Your task to perform on an android device: Open Google Chrome Image 0: 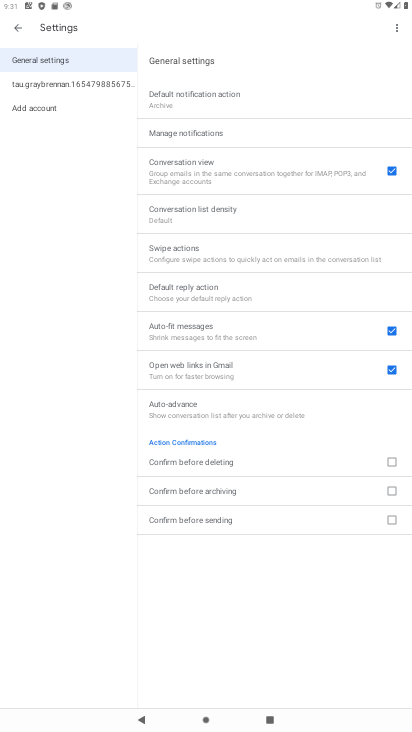
Step 0: press home button
Your task to perform on an android device: Open Google Chrome Image 1: 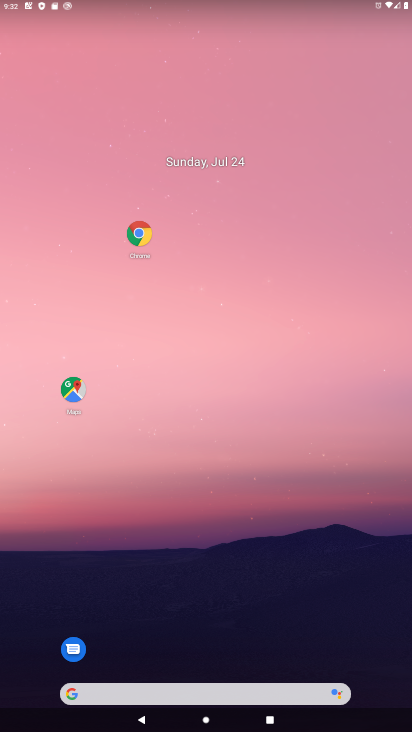
Step 1: click (139, 226)
Your task to perform on an android device: Open Google Chrome Image 2: 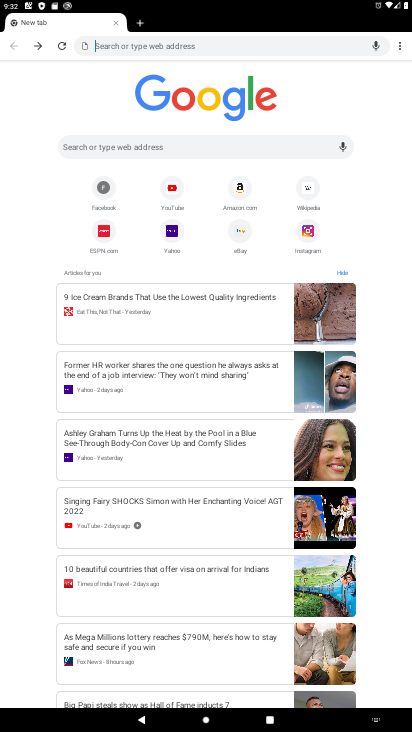
Step 2: task complete